Your task to perform on an android device: all mails in gmail Image 0: 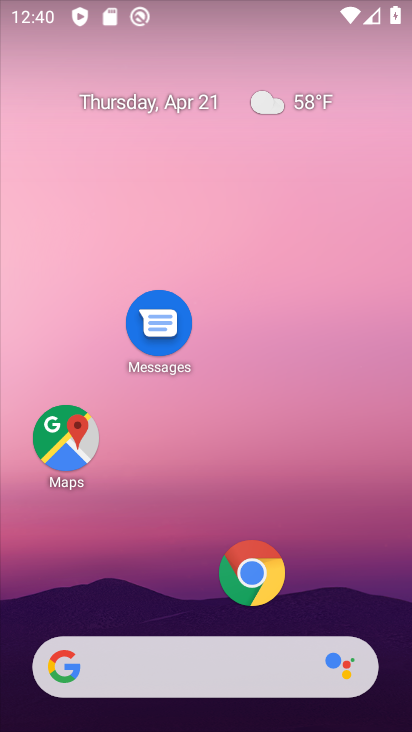
Step 0: drag from (178, 549) to (166, 39)
Your task to perform on an android device: all mails in gmail Image 1: 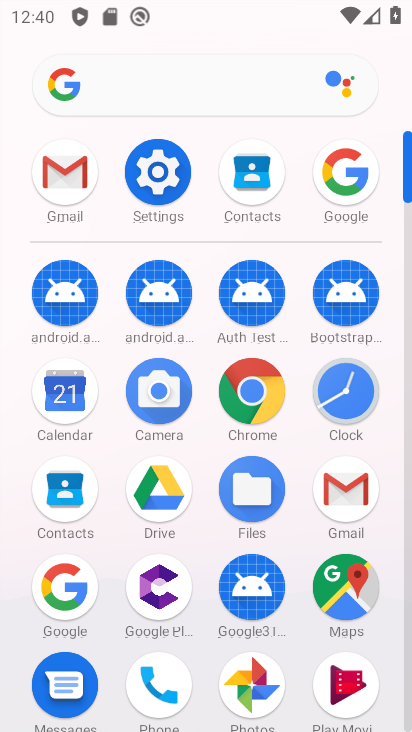
Step 1: click (63, 173)
Your task to perform on an android device: all mails in gmail Image 2: 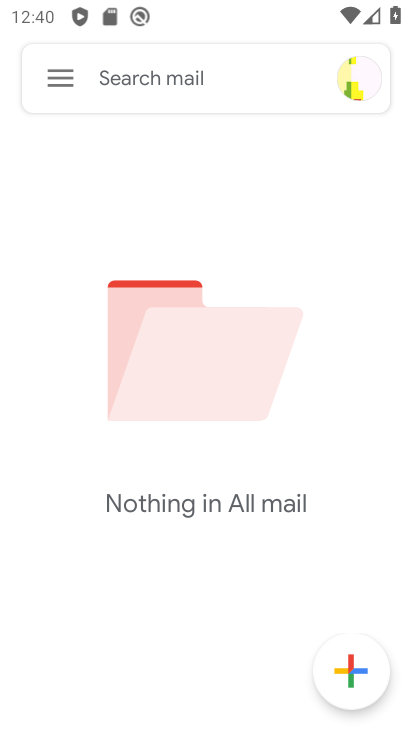
Step 2: click (56, 80)
Your task to perform on an android device: all mails in gmail Image 3: 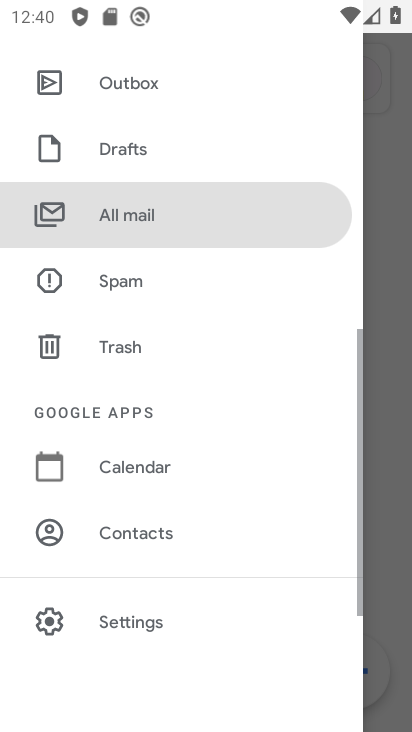
Step 3: click (148, 215)
Your task to perform on an android device: all mails in gmail Image 4: 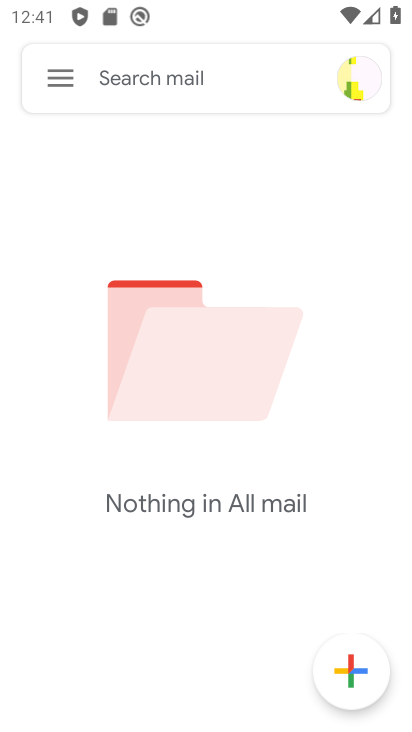
Step 4: task complete